Your task to perform on an android device: Go to Maps Image 0: 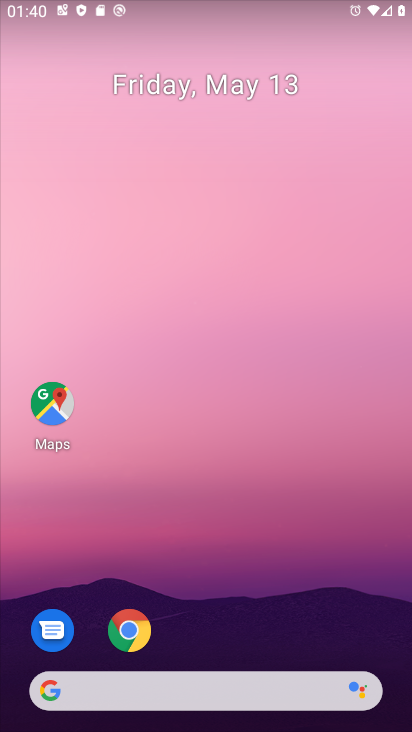
Step 0: drag from (226, 705) to (334, 114)
Your task to perform on an android device: Go to Maps Image 1: 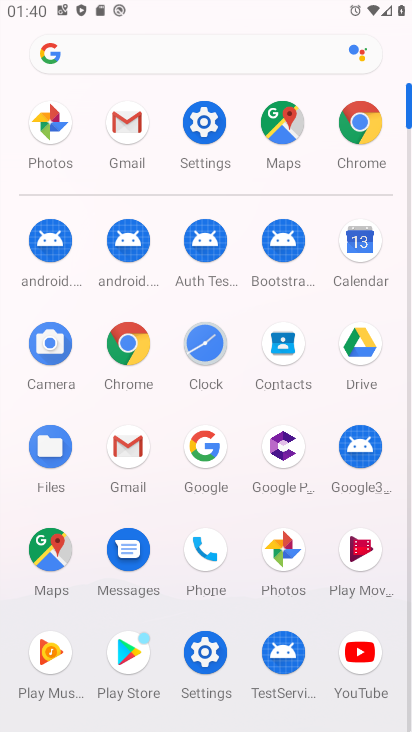
Step 1: click (278, 125)
Your task to perform on an android device: Go to Maps Image 2: 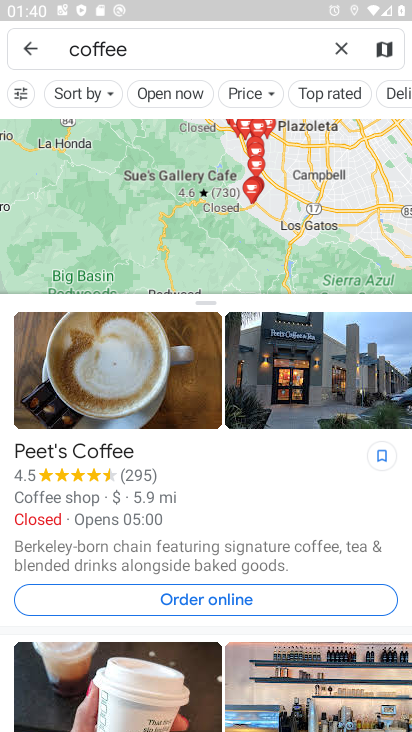
Step 2: click (31, 51)
Your task to perform on an android device: Go to Maps Image 3: 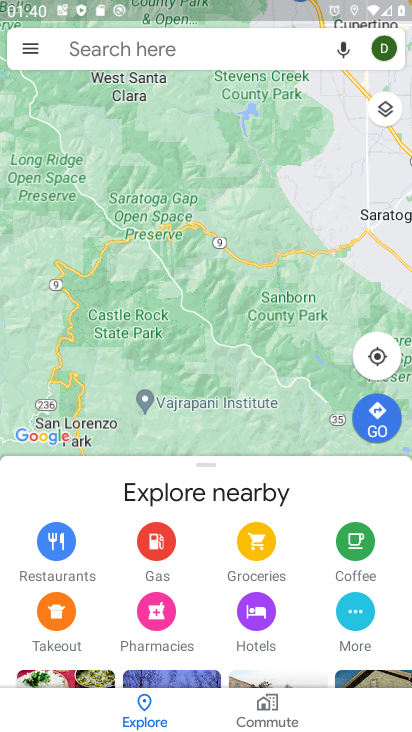
Step 3: task complete